Your task to perform on an android device: delete browsing data in the chrome app Image 0: 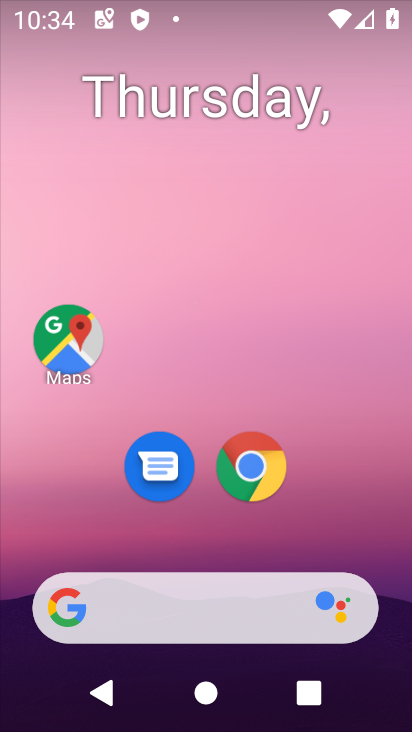
Step 0: click (248, 458)
Your task to perform on an android device: delete browsing data in the chrome app Image 1: 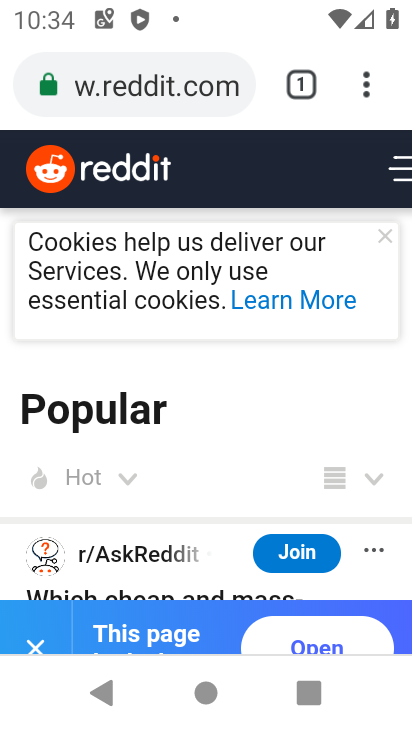
Step 1: drag from (371, 73) to (113, 480)
Your task to perform on an android device: delete browsing data in the chrome app Image 2: 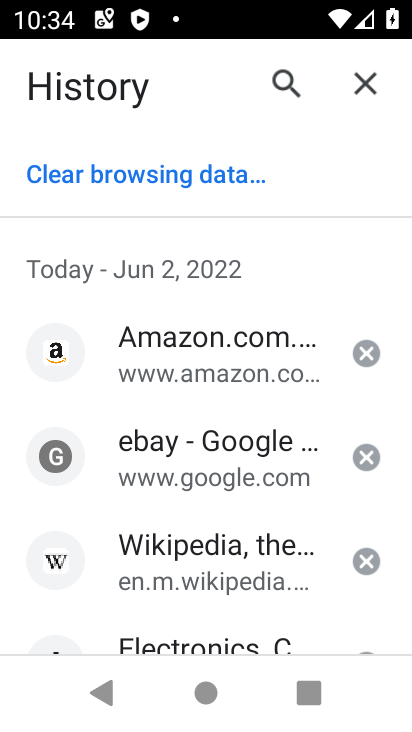
Step 2: click (107, 170)
Your task to perform on an android device: delete browsing data in the chrome app Image 3: 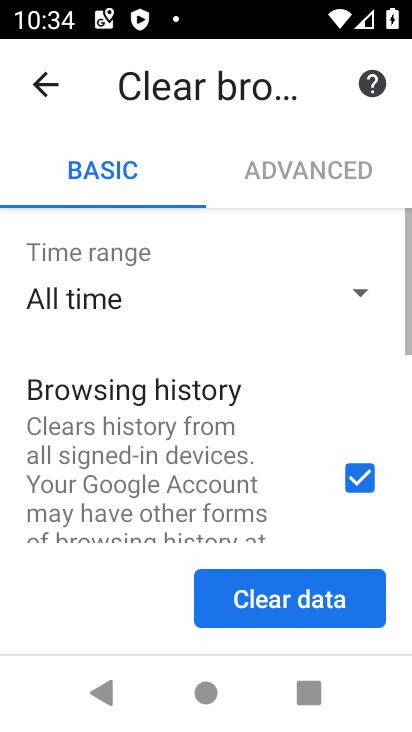
Step 3: drag from (266, 532) to (243, 253)
Your task to perform on an android device: delete browsing data in the chrome app Image 4: 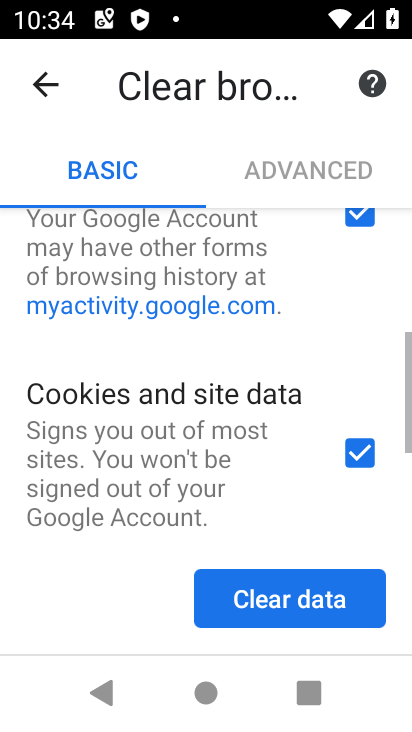
Step 4: drag from (253, 511) to (241, 295)
Your task to perform on an android device: delete browsing data in the chrome app Image 5: 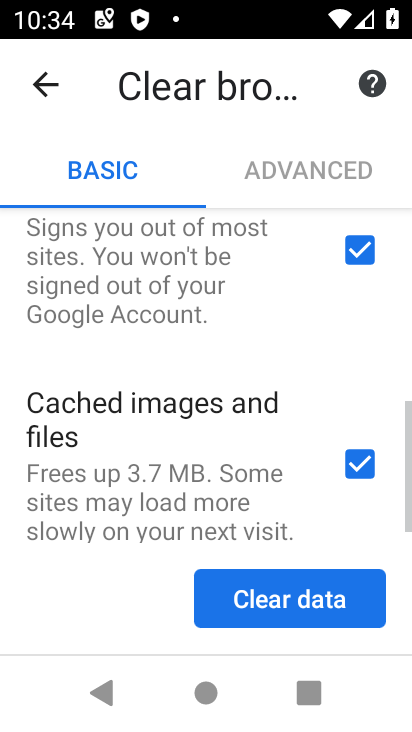
Step 5: click (301, 584)
Your task to perform on an android device: delete browsing data in the chrome app Image 6: 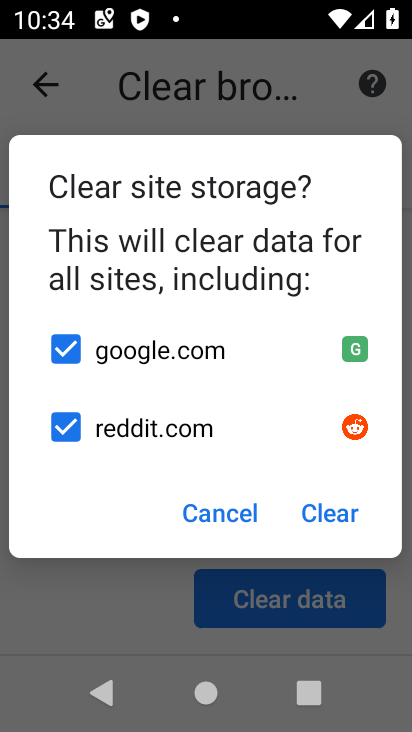
Step 6: click (331, 507)
Your task to perform on an android device: delete browsing data in the chrome app Image 7: 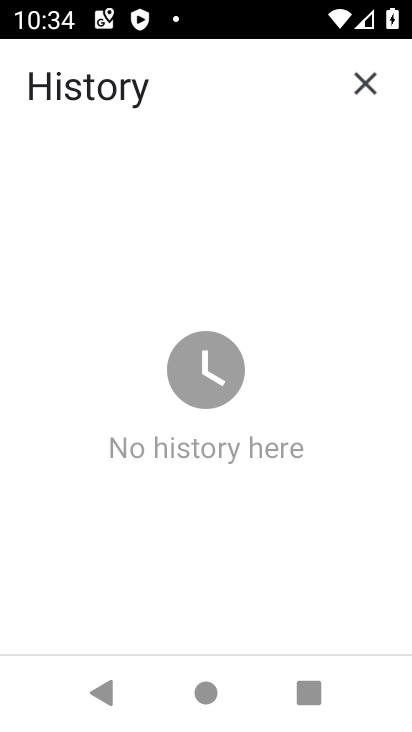
Step 7: task complete